Your task to perform on an android device: delete the emails in spam in the gmail app Image 0: 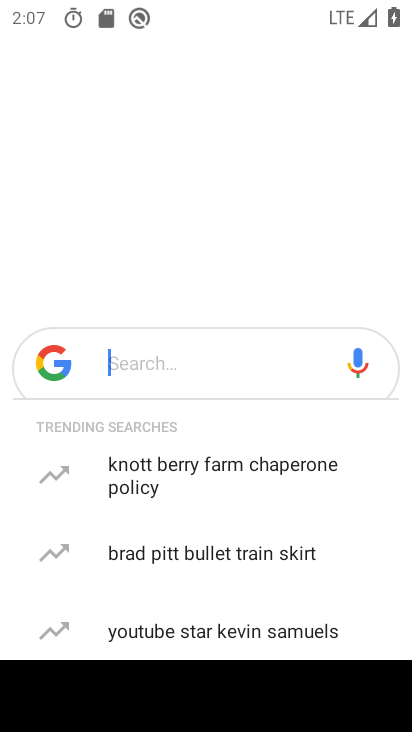
Step 0: press home button
Your task to perform on an android device: delete the emails in spam in the gmail app Image 1: 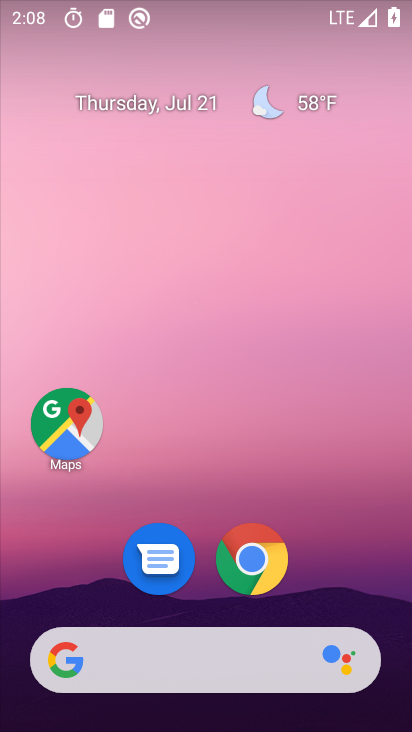
Step 1: drag from (372, 569) to (378, 108)
Your task to perform on an android device: delete the emails in spam in the gmail app Image 2: 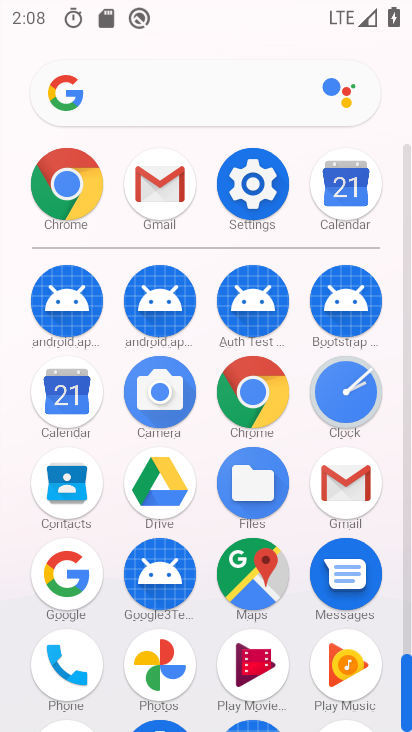
Step 2: click (353, 473)
Your task to perform on an android device: delete the emails in spam in the gmail app Image 3: 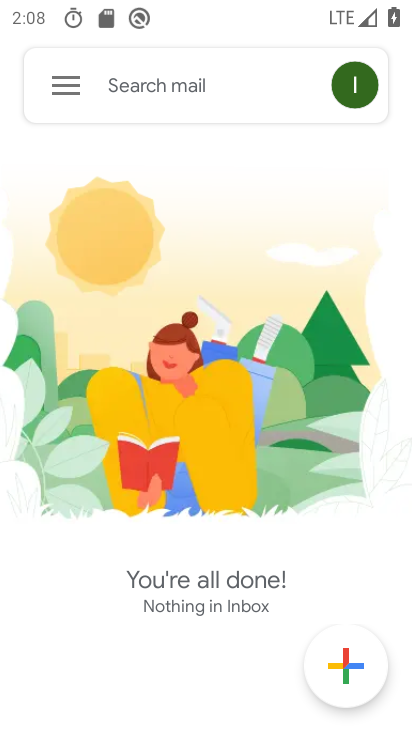
Step 3: click (69, 87)
Your task to perform on an android device: delete the emails in spam in the gmail app Image 4: 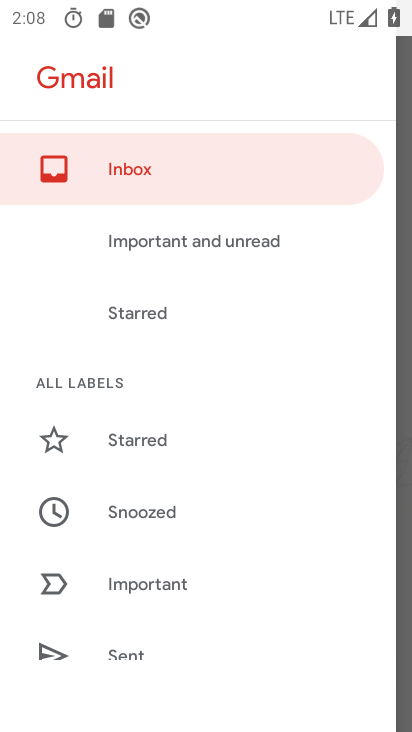
Step 4: drag from (276, 443) to (281, 311)
Your task to perform on an android device: delete the emails in spam in the gmail app Image 5: 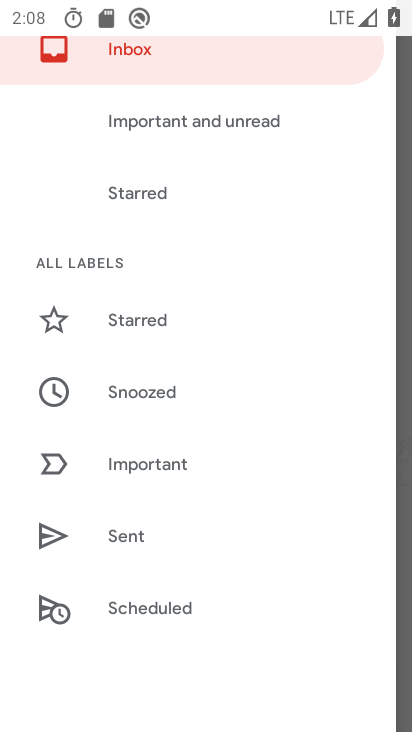
Step 5: drag from (292, 454) to (304, 331)
Your task to perform on an android device: delete the emails in spam in the gmail app Image 6: 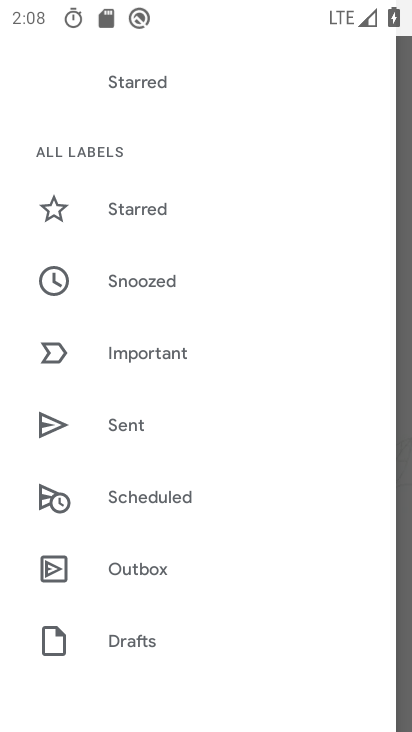
Step 6: drag from (305, 465) to (298, 343)
Your task to perform on an android device: delete the emails in spam in the gmail app Image 7: 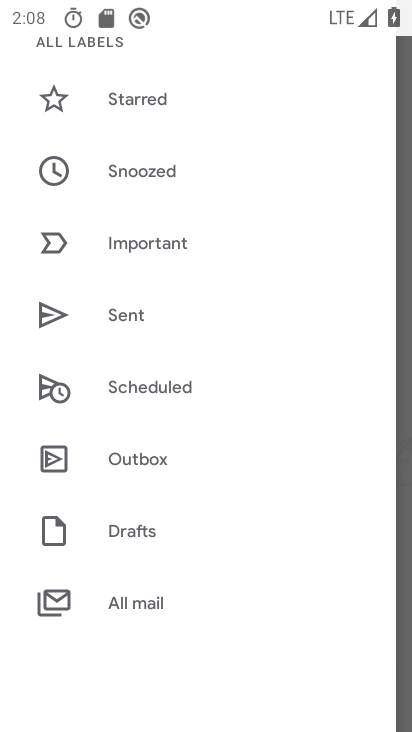
Step 7: click (187, 599)
Your task to perform on an android device: delete the emails in spam in the gmail app Image 8: 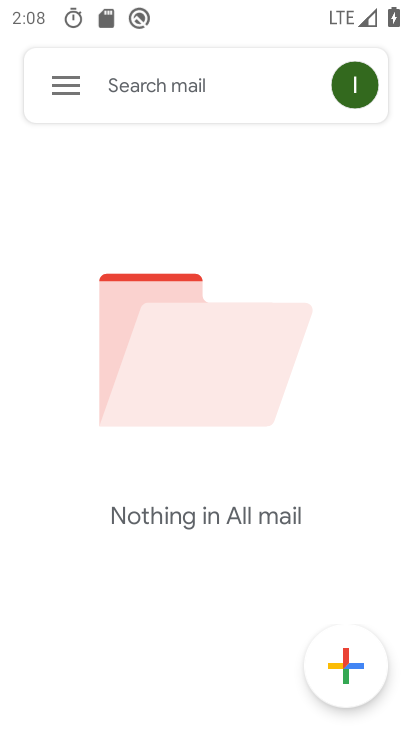
Step 8: task complete